Your task to perform on an android device: turn off location Image 0: 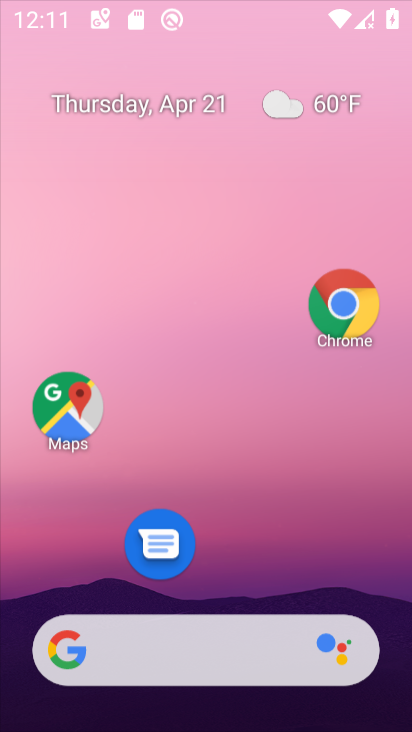
Step 0: click (408, 401)
Your task to perform on an android device: turn off location Image 1: 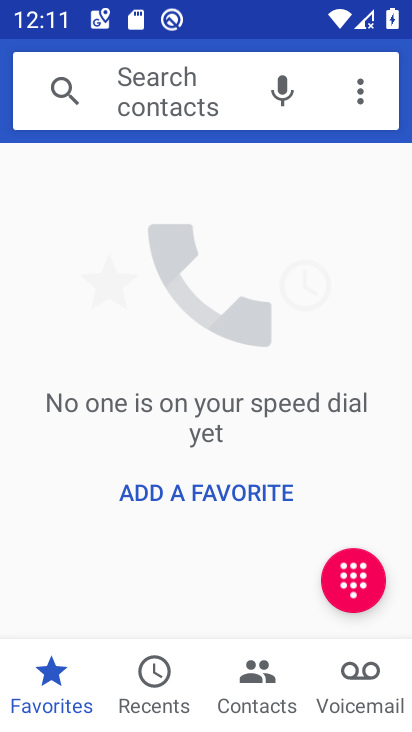
Step 1: press home button
Your task to perform on an android device: turn off location Image 2: 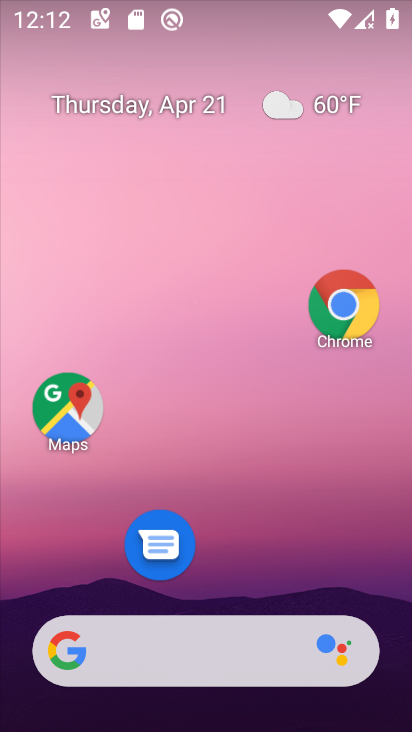
Step 2: drag from (264, 510) to (283, 49)
Your task to perform on an android device: turn off location Image 3: 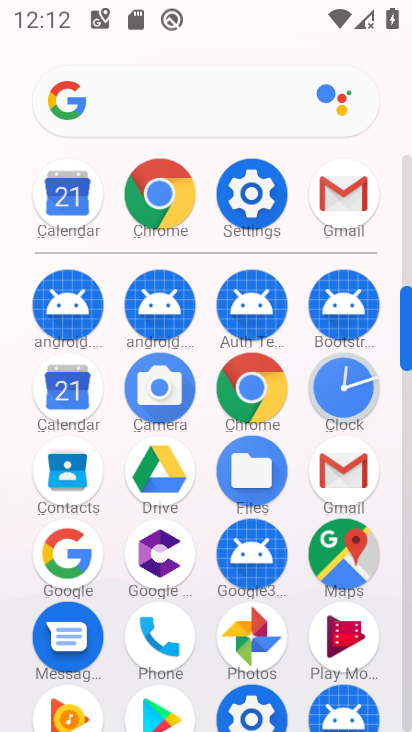
Step 3: click (252, 186)
Your task to perform on an android device: turn off location Image 4: 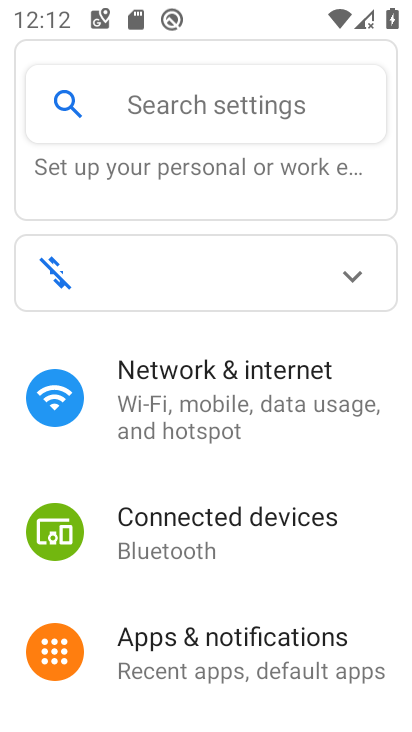
Step 4: drag from (338, 570) to (328, 50)
Your task to perform on an android device: turn off location Image 5: 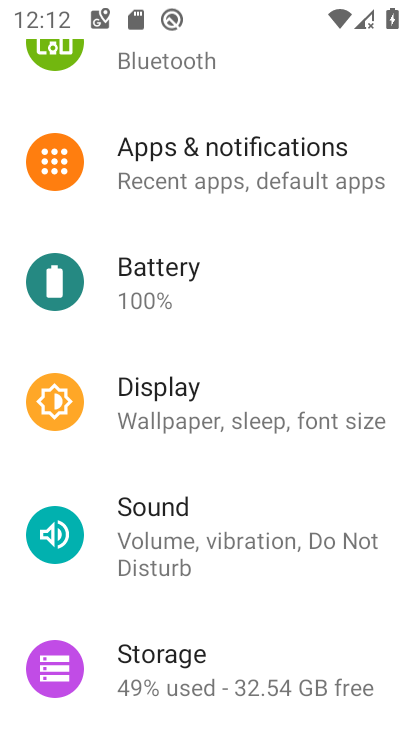
Step 5: drag from (229, 574) to (335, 111)
Your task to perform on an android device: turn off location Image 6: 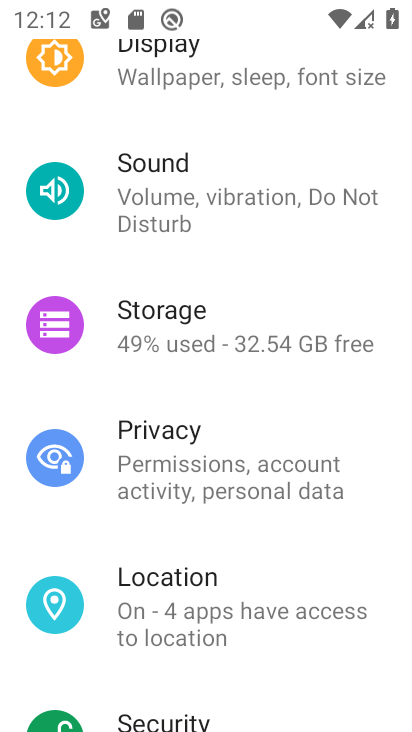
Step 6: drag from (230, 494) to (237, 383)
Your task to perform on an android device: turn off location Image 7: 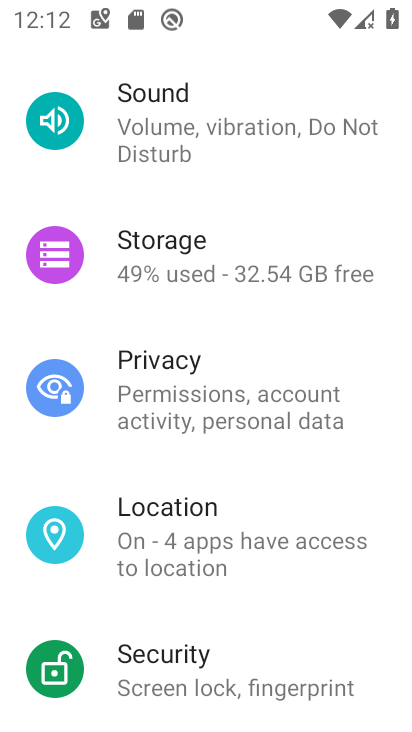
Step 7: click (233, 564)
Your task to perform on an android device: turn off location Image 8: 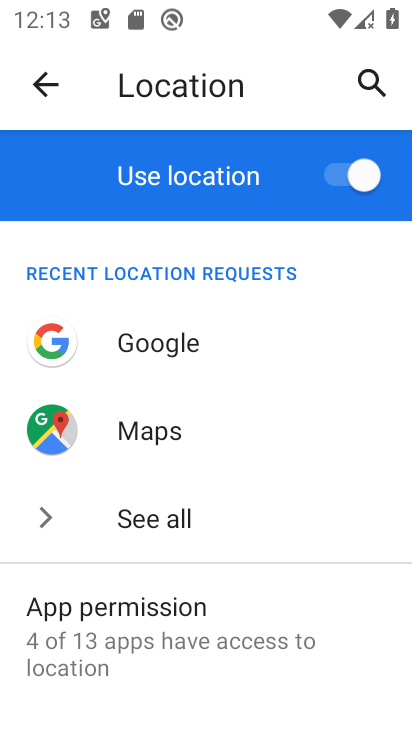
Step 8: click (331, 177)
Your task to perform on an android device: turn off location Image 9: 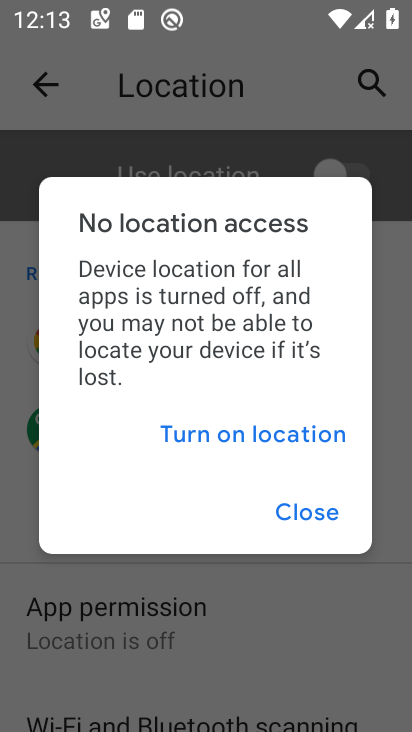
Step 9: click (324, 522)
Your task to perform on an android device: turn off location Image 10: 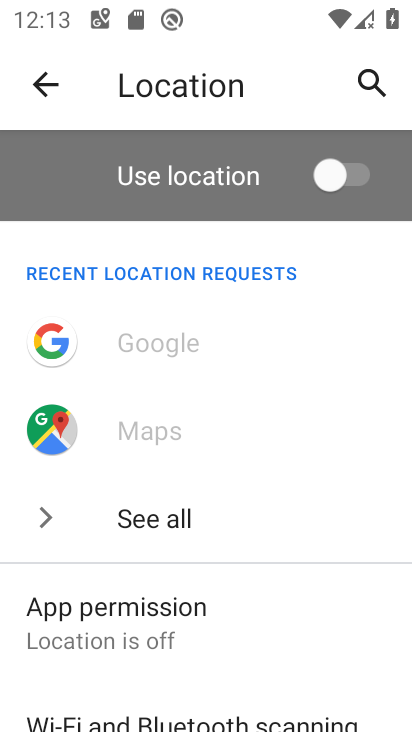
Step 10: task complete